Your task to perform on an android device: Search for seafood restaurants on Google Maps Image 0: 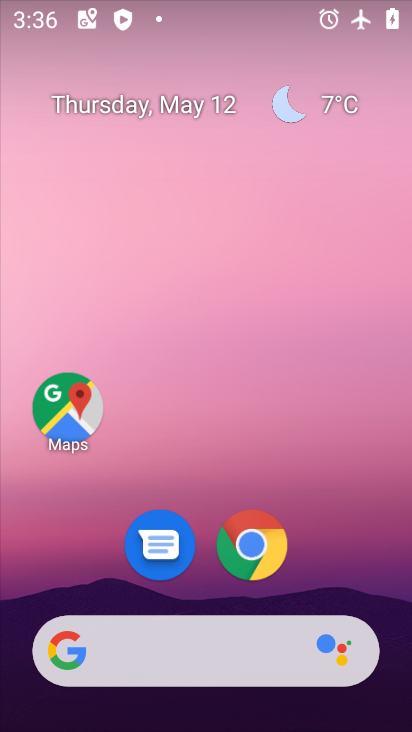
Step 0: click (69, 402)
Your task to perform on an android device: Search for seafood restaurants on Google Maps Image 1: 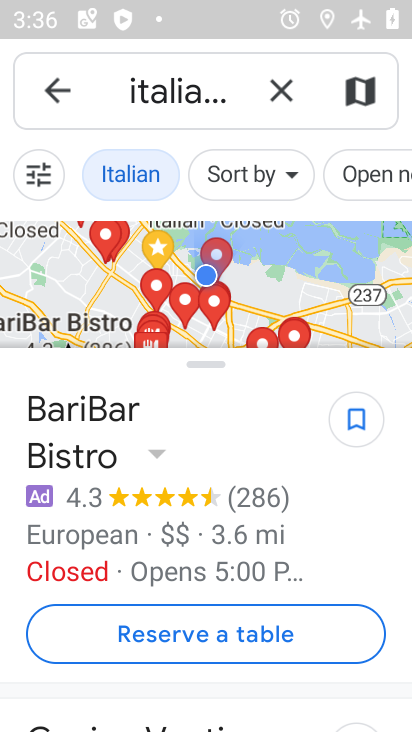
Step 1: click (280, 85)
Your task to perform on an android device: Search for seafood restaurants on Google Maps Image 2: 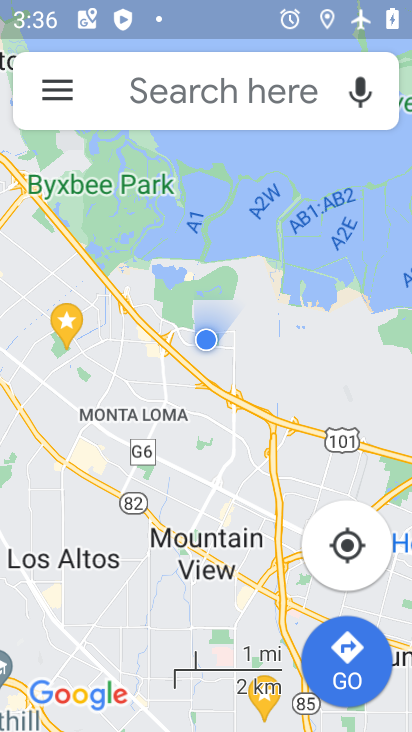
Step 2: click (158, 89)
Your task to perform on an android device: Search for seafood restaurants on Google Maps Image 3: 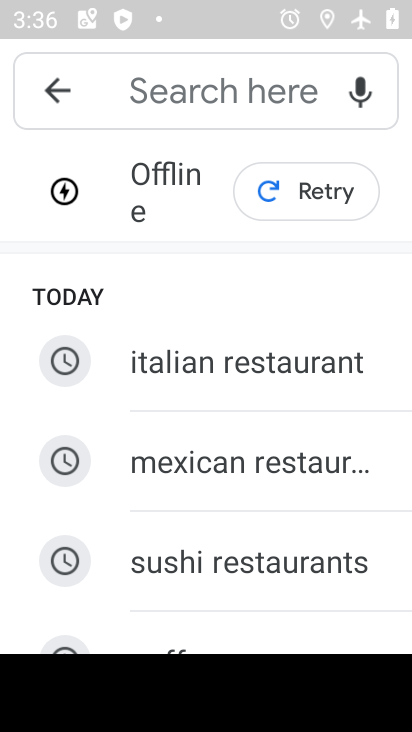
Step 3: type "seafood restaurants"
Your task to perform on an android device: Search for seafood restaurants on Google Maps Image 4: 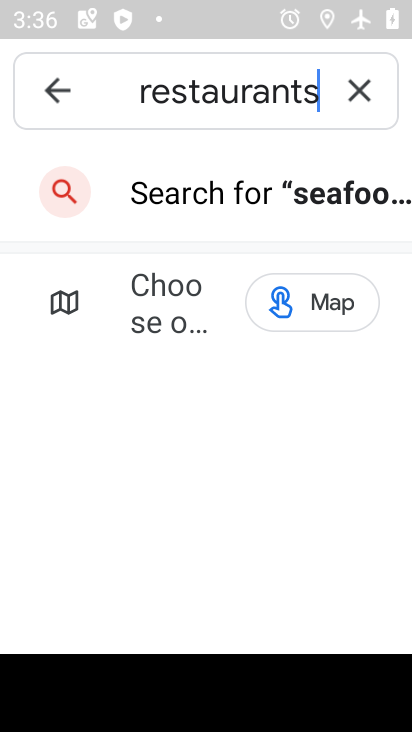
Step 4: click (326, 203)
Your task to perform on an android device: Search for seafood restaurants on Google Maps Image 5: 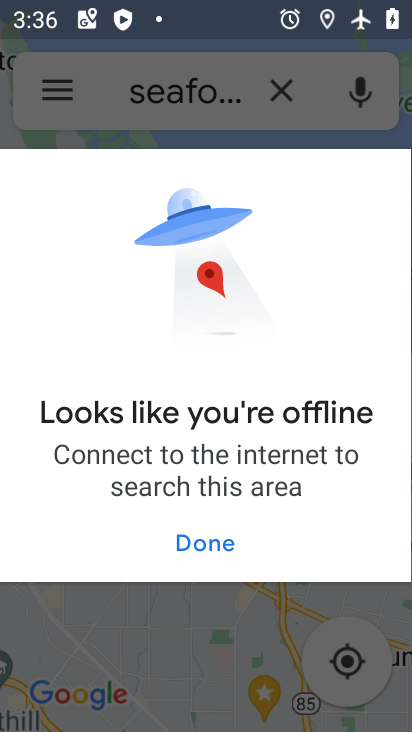
Step 5: task complete